Your task to perform on an android device: remove spam from my inbox in the gmail app Image 0: 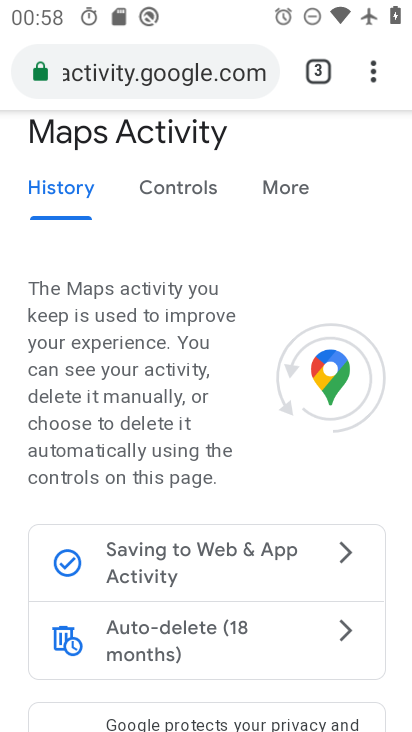
Step 0: press home button
Your task to perform on an android device: remove spam from my inbox in the gmail app Image 1: 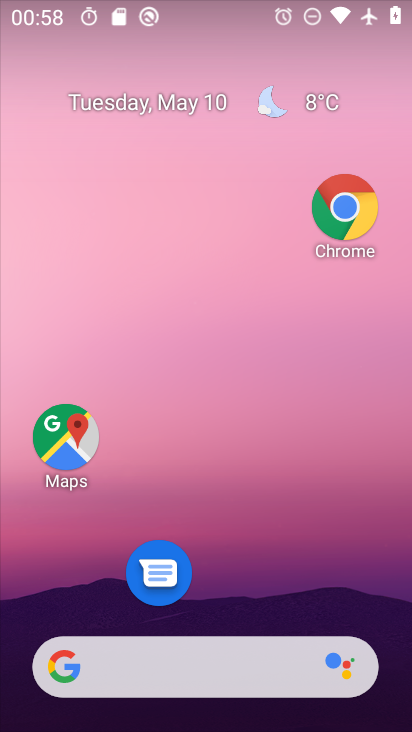
Step 1: drag from (296, 619) to (250, 152)
Your task to perform on an android device: remove spam from my inbox in the gmail app Image 2: 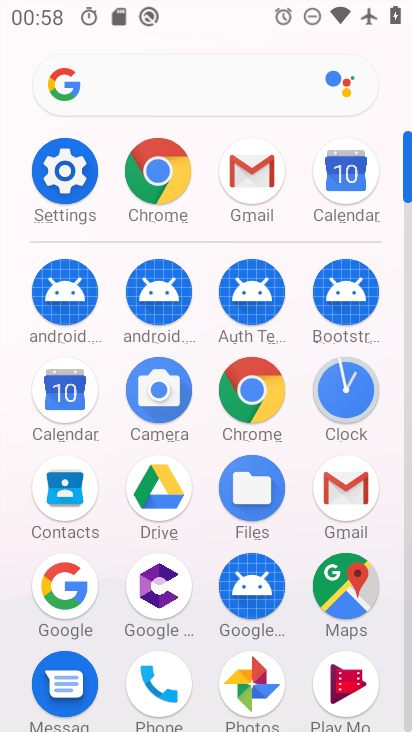
Step 2: click (241, 185)
Your task to perform on an android device: remove spam from my inbox in the gmail app Image 3: 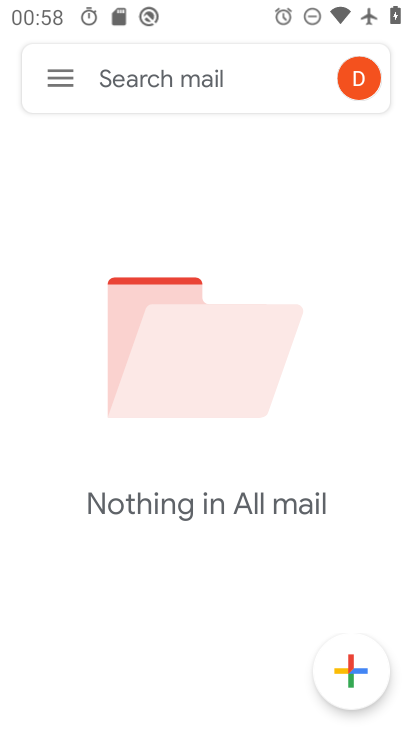
Step 3: click (47, 84)
Your task to perform on an android device: remove spam from my inbox in the gmail app Image 4: 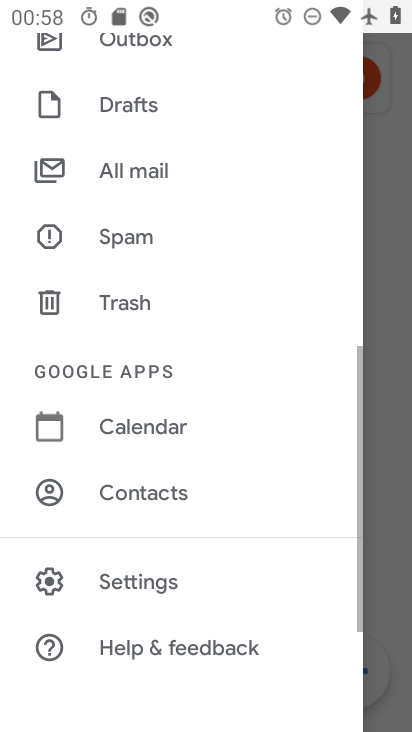
Step 4: drag from (146, 155) to (168, 515)
Your task to perform on an android device: remove spam from my inbox in the gmail app Image 5: 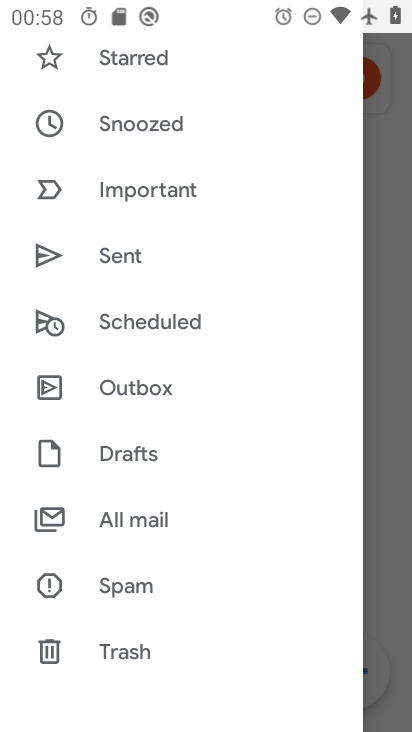
Step 5: drag from (163, 161) to (164, 550)
Your task to perform on an android device: remove spam from my inbox in the gmail app Image 6: 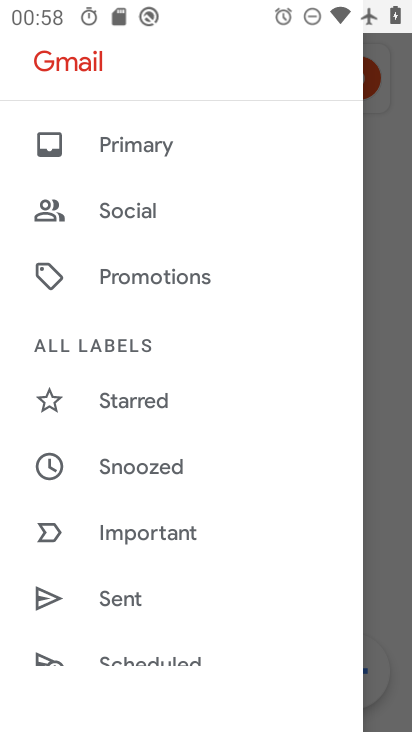
Step 6: drag from (166, 483) to (233, 250)
Your task to perform on an android device: remove spam from my inbox in the gmail app Image 7: 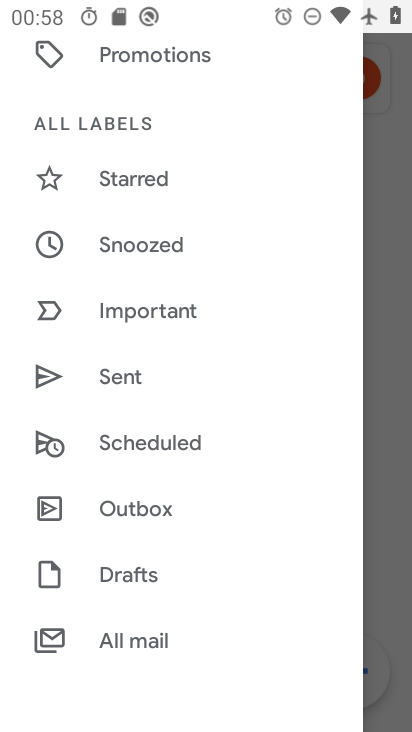
Step 7: click (112, 646)
Your task to perform on an android device: remove spam from my inbox in the gmail app Image 8: 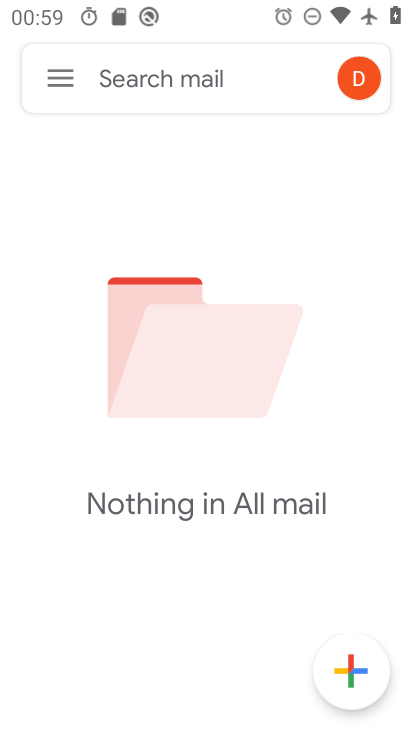
Step 8: task complete